Your task to perform on an android device: Go to Wikipedia Image 0: 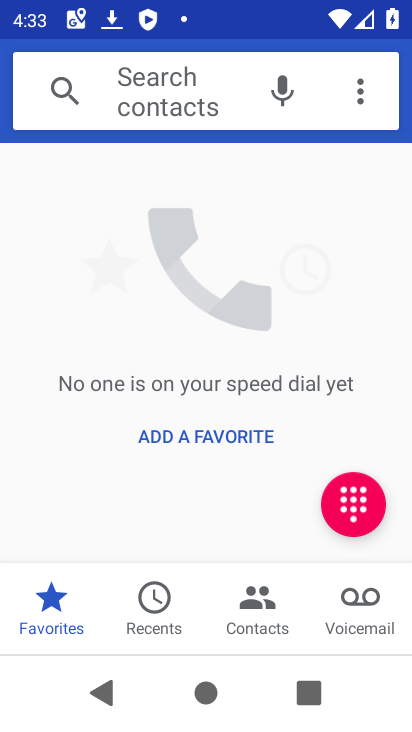
Step 0: press home button
Your task to perform on an android device: Go to Wikipedia Image 1: 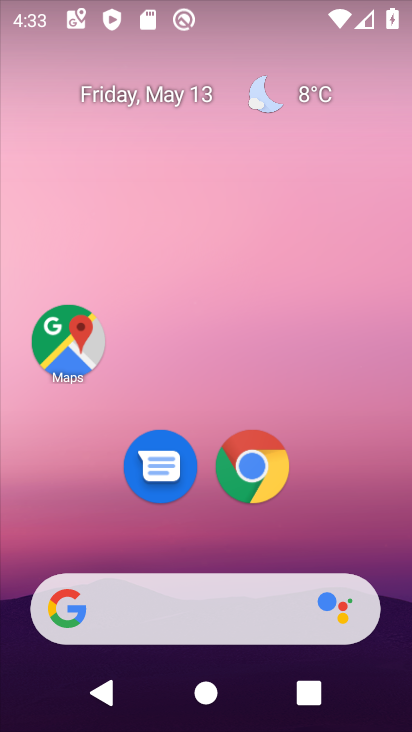
Step 1: click (254, 464)
Your task to perform on an android device: Go to Wikipedia Image 2: 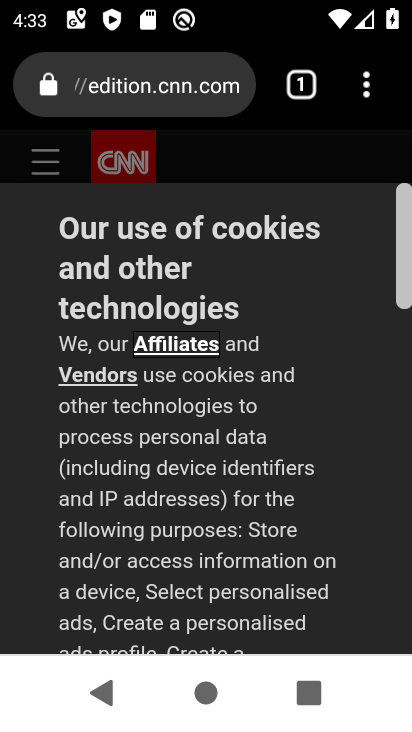
Step 2: click (158, 85)
Your task to perform on an android device: Go to Wikipedia Image 3: 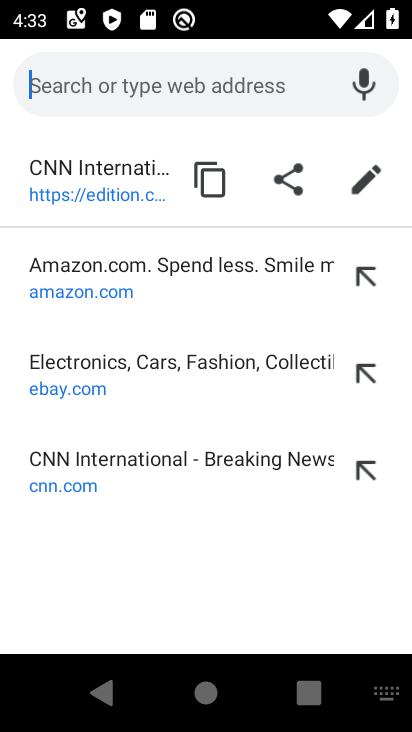
Step 3: type "wikipedia"
Your task to perform on an android device: Go to Wikipedia Image 4: 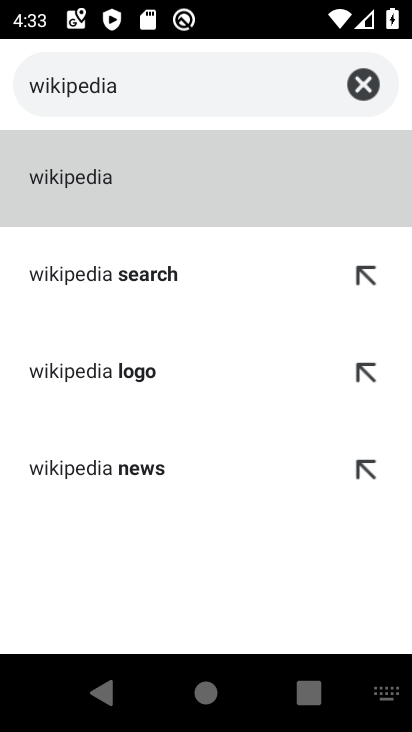
Step 4: click (116, 190)
Your task to perform on an android device: Go to Wikipedia Image 5: 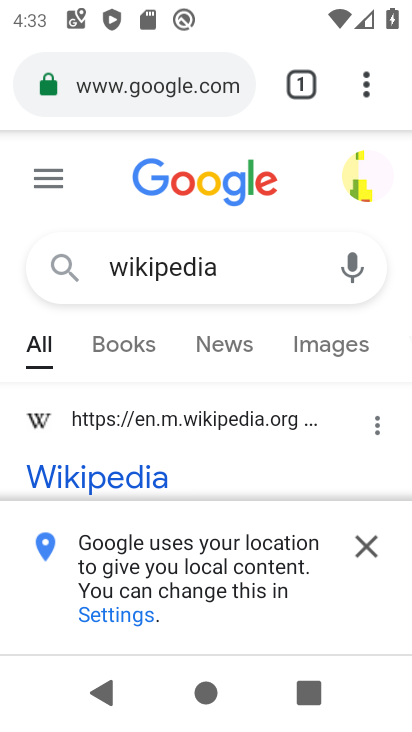
Step 5: click (152, 422)
Your task to perform on an android device: Go to Wikipedia Image 6: 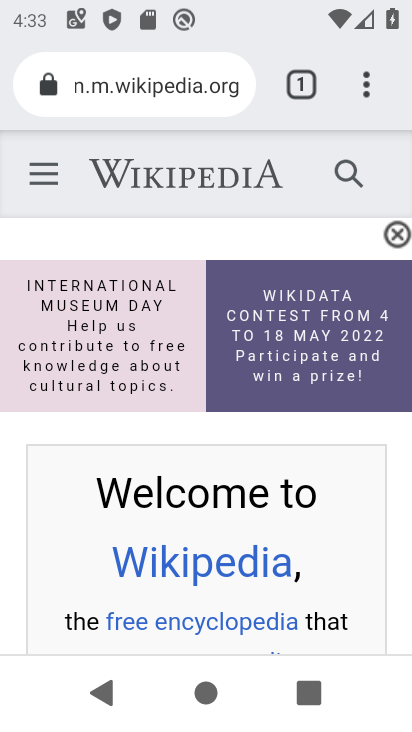
Step 6: task complete